Your task to perform on an android device: Open display settings Image 0: 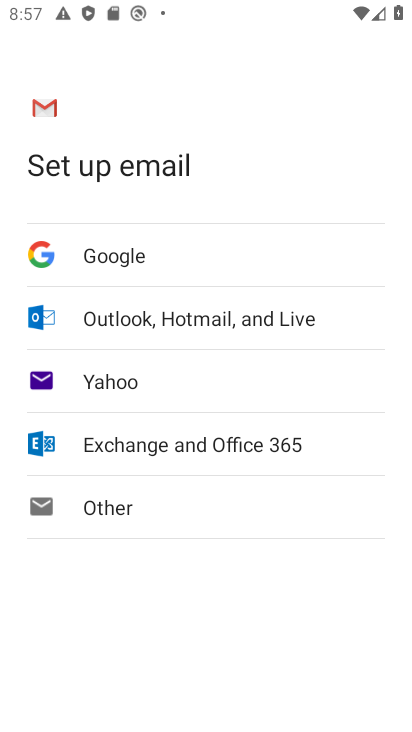
Step 0: press home button
Your task to perform on an android device: Open display settings Image 1: 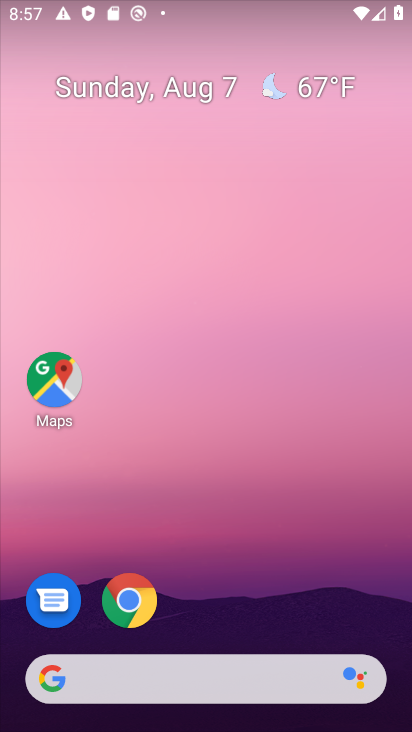
Step 1: drag from (202, 616) to (186, 229)
Your task to perform on an android device: Open display settings Image 2: 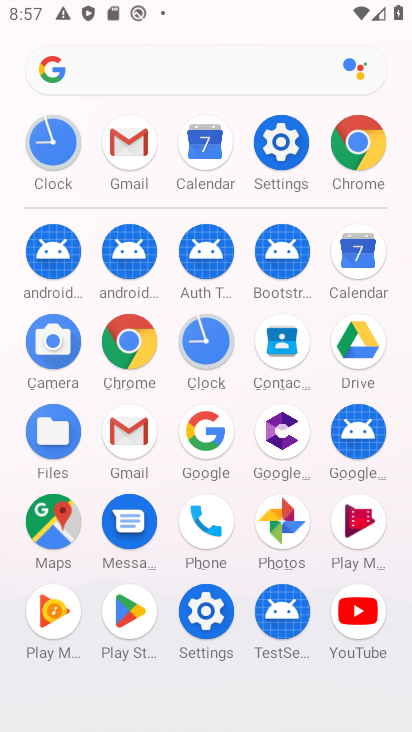
Step 2: click (277, 141)
Your task to perform on an android device: Open display settings Image 3: 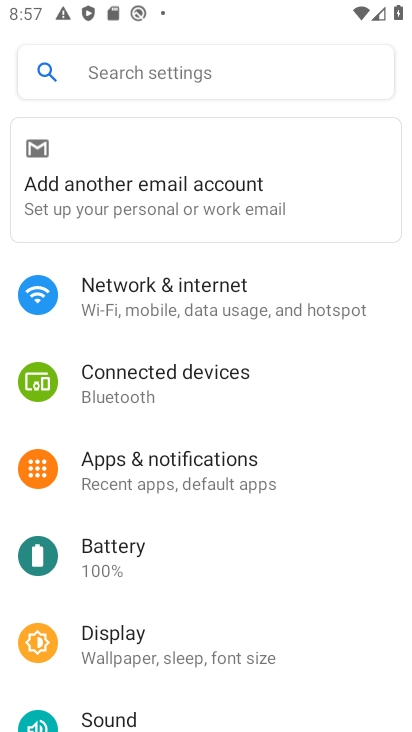
Step 3: click (127, 648)
Your task to perform on an android device: Open display settings Image 4: 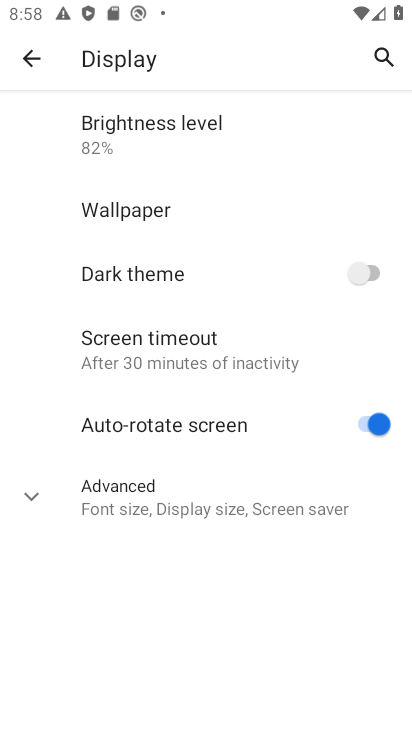
Step 4: task complete